Your task to perform on an android device: turn on sleep mode Image 0: 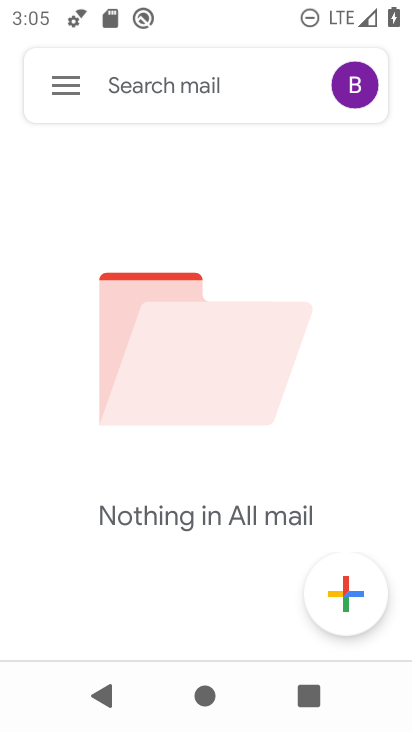
Step 0: press home button
Your task to perform on an android device: turn on sleep mode Image 1: 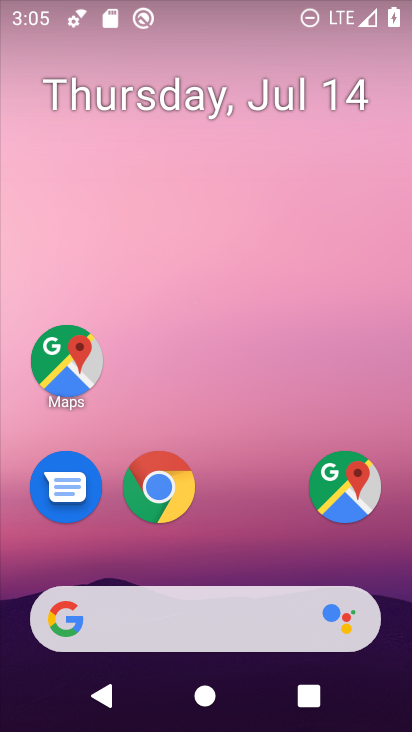
Step 1: drag from (236, 563) to (242, 168)
Your task to perform on an android device: turn on sleep mode Image 2: 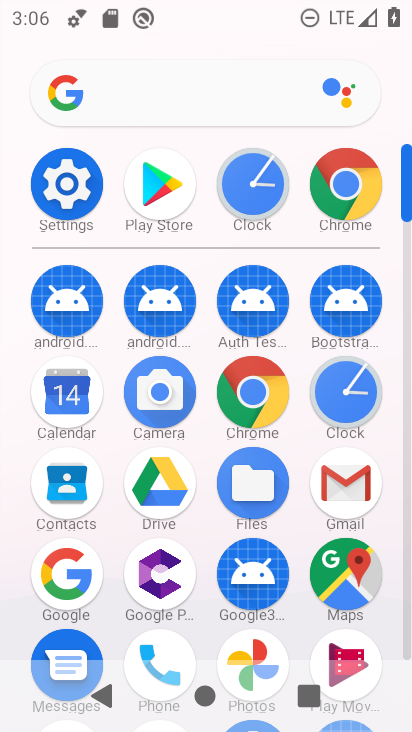
Step 2: click (74, 201)
Your task to perform on an android device: turn on sleep mode Image 3: 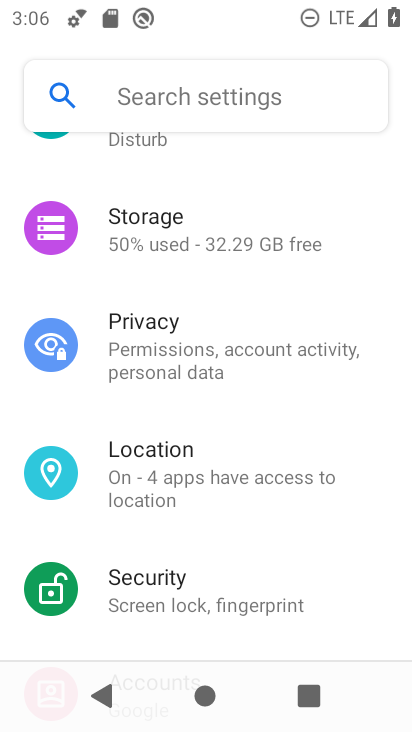
Step 3: drag from (325, 560) to (325, 424)
Your task to perform on an android device: turn on sleep mode Image 4: 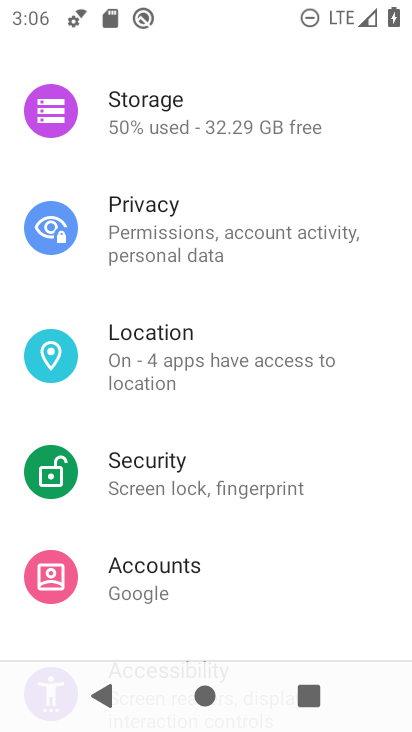
Step 4: drag from (345, 566) to (347, 453)
Your task to perform on an android device: turn on sleep mode Image 5: 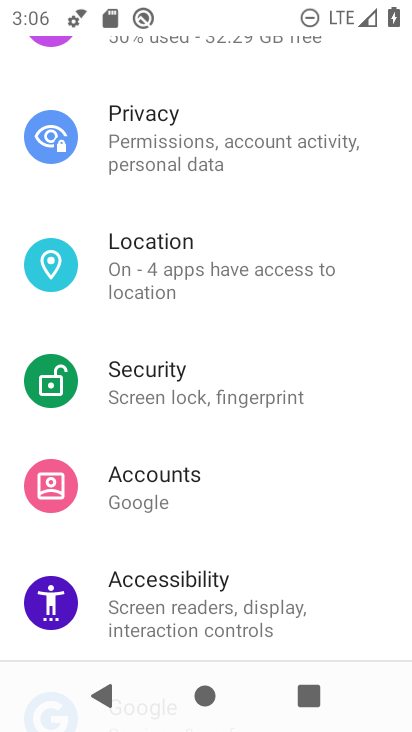
Step 5: drag from (330, 585) to (337, 471)
Your task to perform on an android device: turn on sleep mode Image 6: 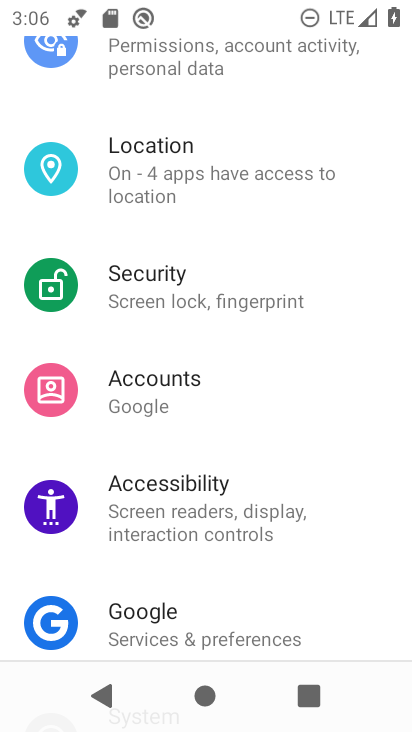
Step 6: drag from (333, 610) to (336, 489)
Your task to perform on an android device: turn on sleep mode Image 7: 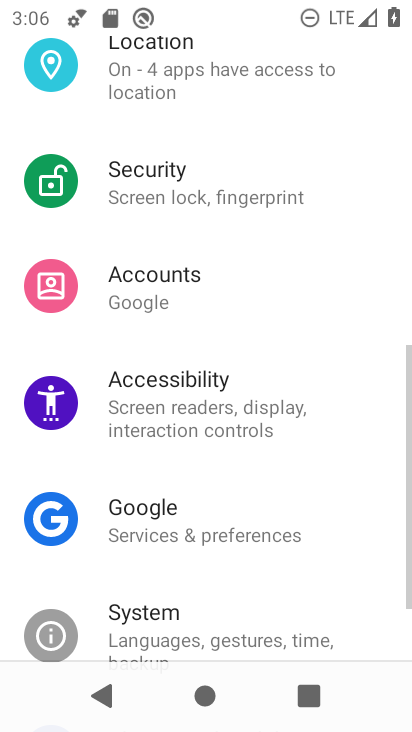
Step 7: drag from (340, 601) to (348, 505)
Your task to perform on an android device: turn on sleep mode Image 8: 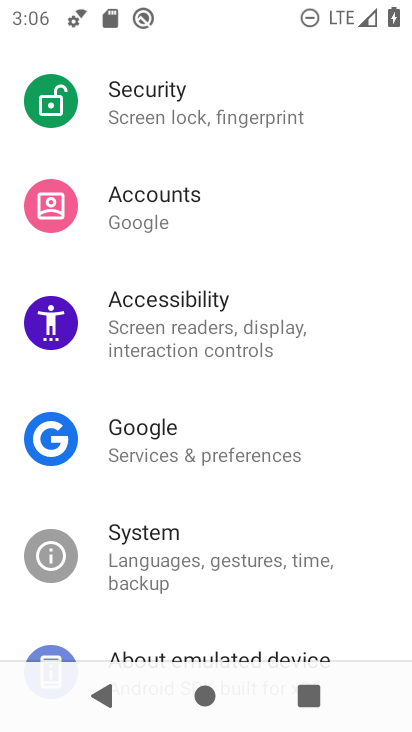
Step 8: drag from (349, 607) to (352, 507)
Your task to perform on an android device: turn on sleep mode Image 9: 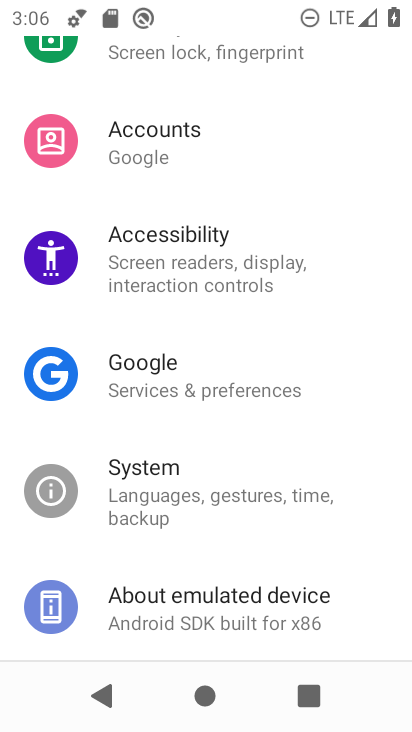
Step 9: drag from (351, 325) to (351, 475)
Your task to perform on an android device: turn on sleep mode Image 10: 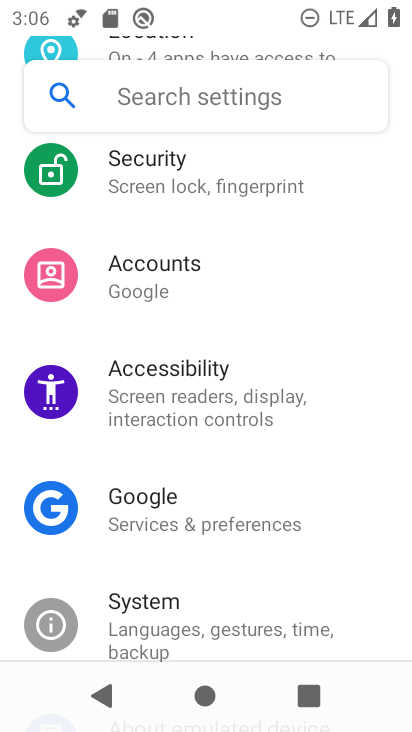
Step 10: drag from (351, 339) to (357, 454)
Your task to perform on an android device: turn on sleep mode Image 11: 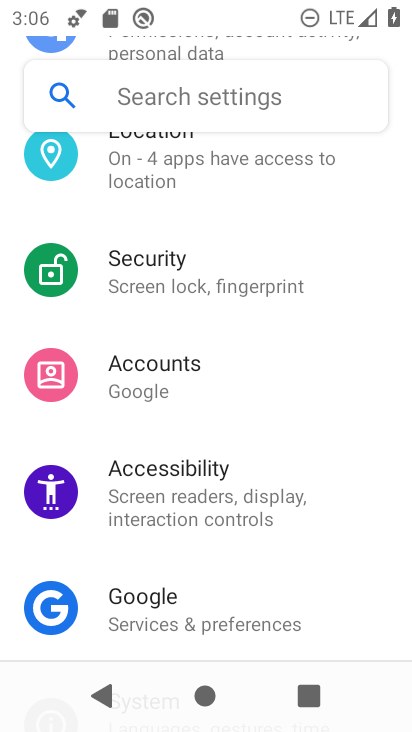
Step 11: drag from (348, 336) to (363, 537)
Your task to perform on an android device: turn on sleep mode Image 12: 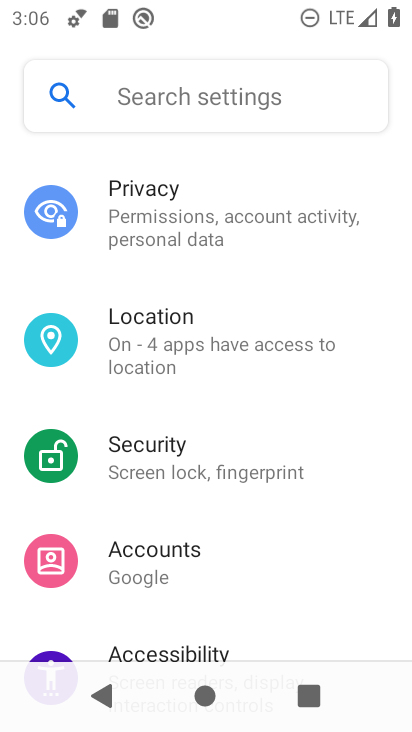
Step 12: drag from (344, 318) to (364, 495)
Your task to perform on an android device: turn on sleep mode Image 13: 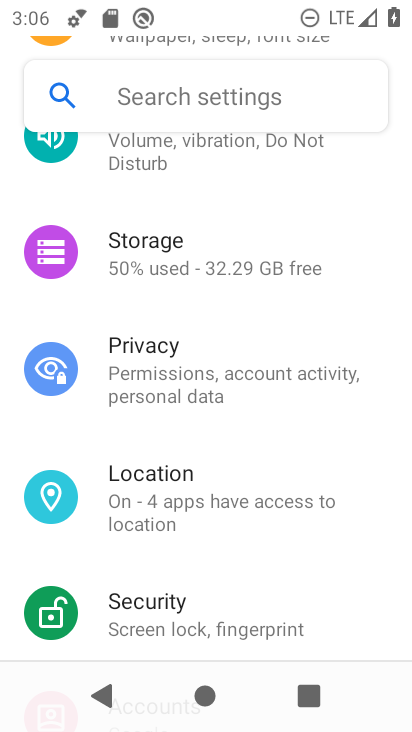
Step 13: drag from (367, 283) to (367, 424)
Your task to perform on an android device: turn on sleep mode Image 14: 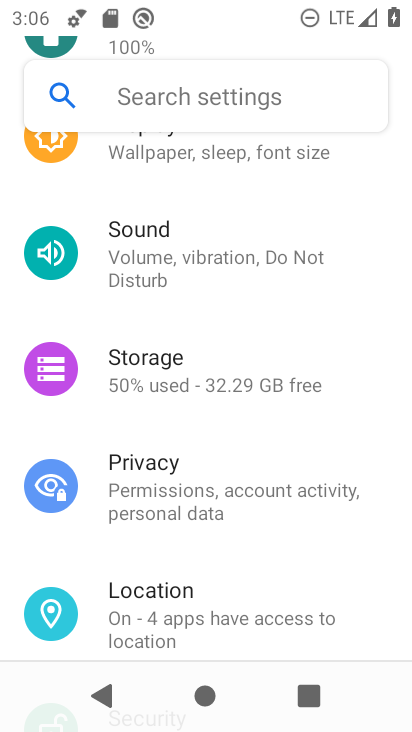
Step 14: drag from (353, 224) to (351, 378)
Your task to perform on an android device: turn on sleep mode Image 15: 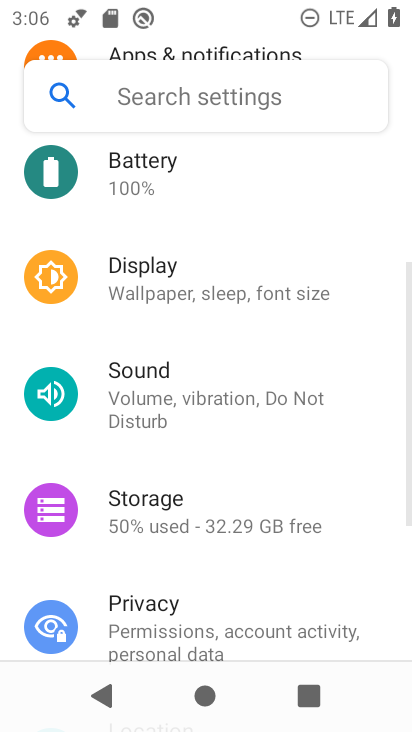
Step 15: click (264, 268)
Your task to perform on an android device: turn on sleep mode Image 16: 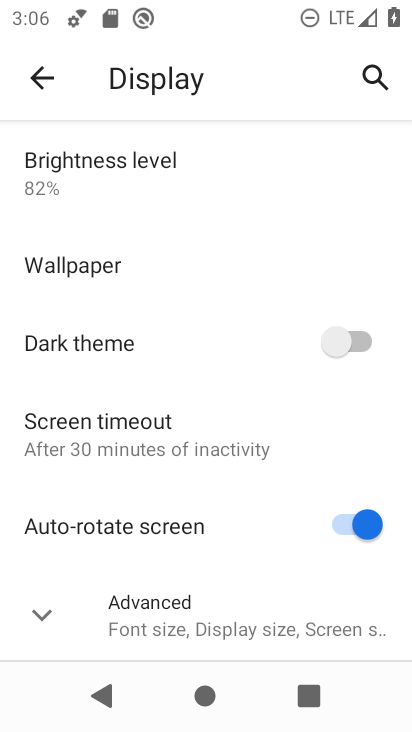
Step 16: drag from (279, 569) to (272, 337)
Your task to perform on an android device: turn on sleep mode Image 17: 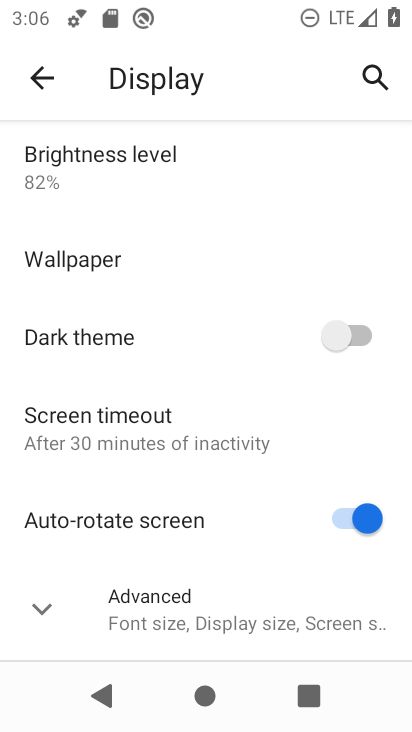
Step 17: click (251, 612)
Your task to perform on an android device: turn on sleep mode Image 18: 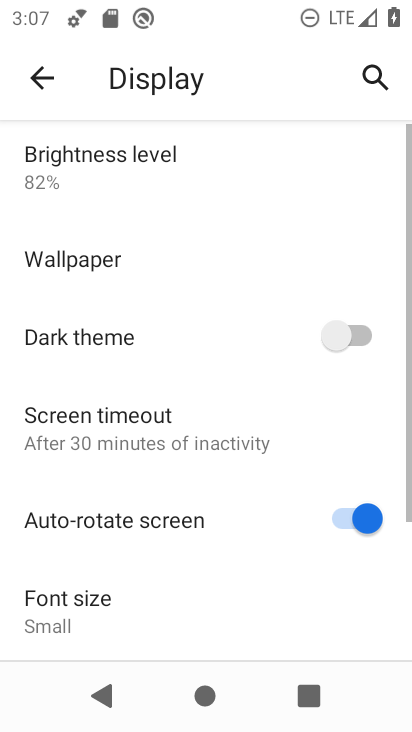
Step 18: task complete